Your task to perform on an android device: What's on my calendar tomorrow? Image 0: 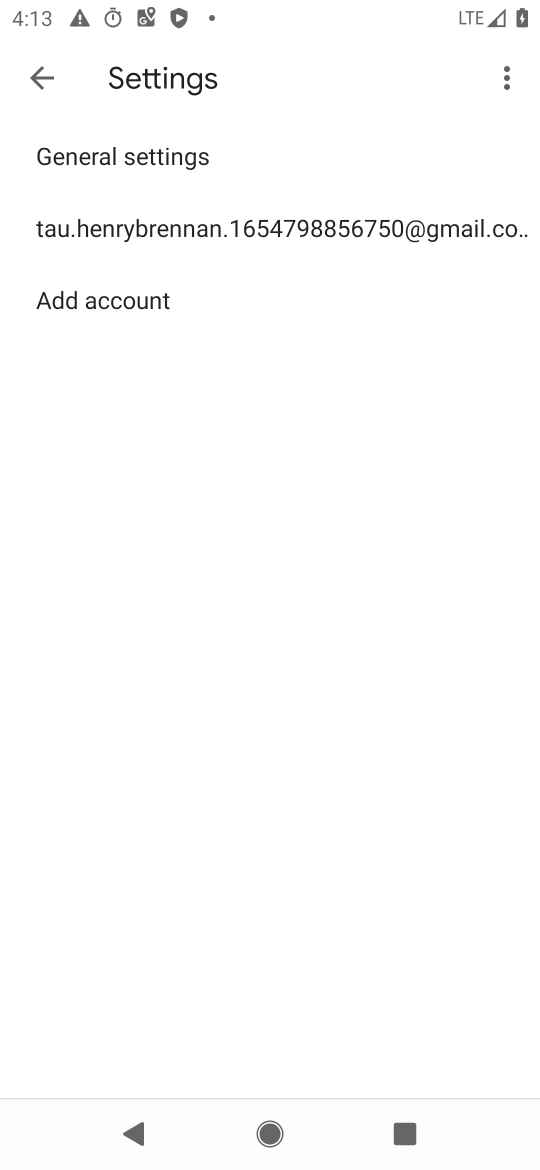
Step 0: press home button
Your task to perform on an android device: What's on my calendar tomorrow? Image 1: 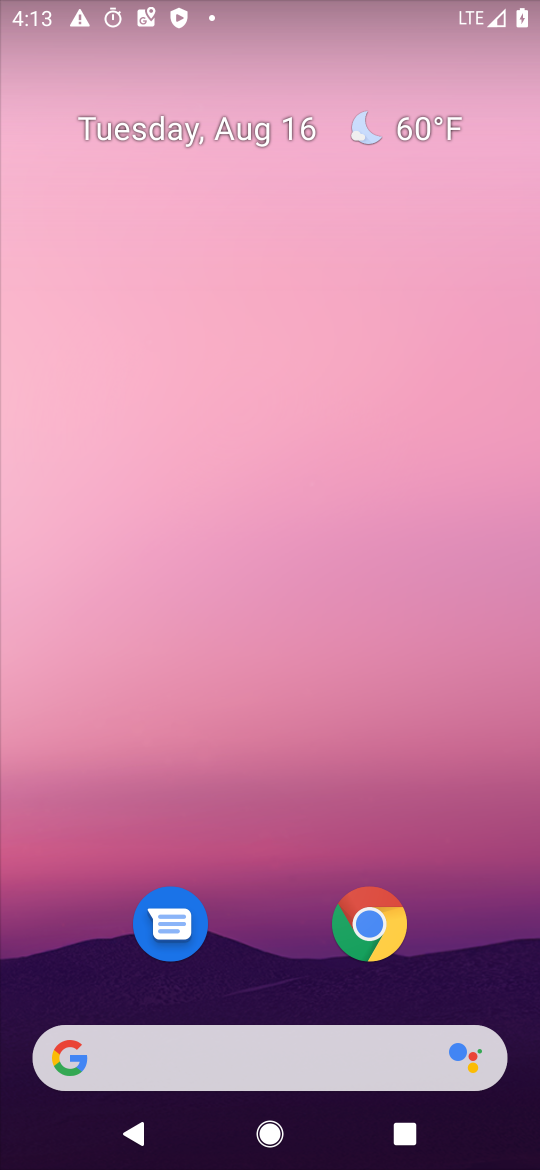
Step 1: click (270, 134)
Your task to perform on an android device: What's on my calendar tomorrow? Image 2: 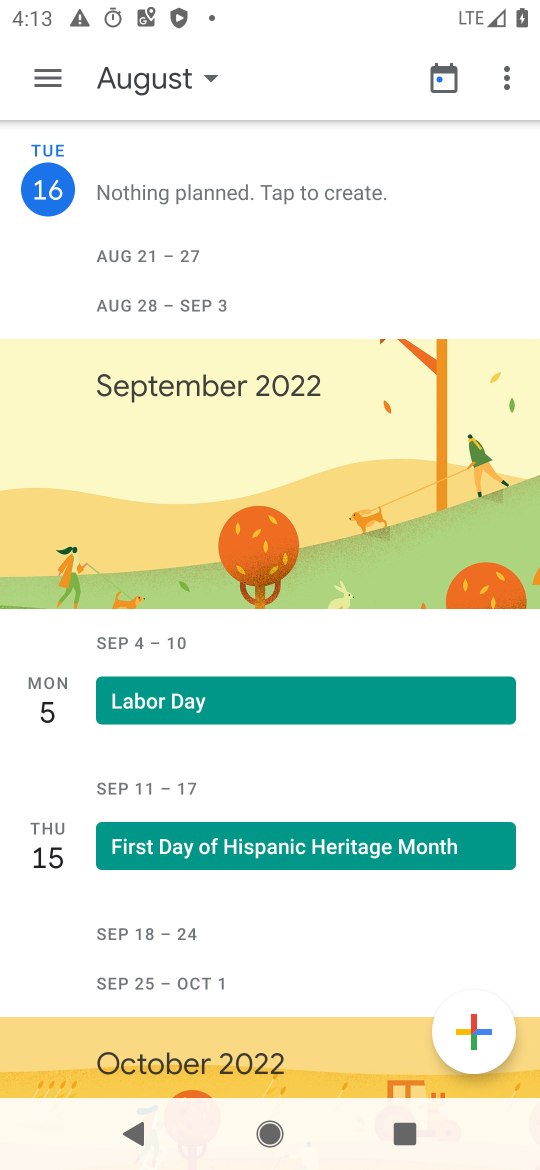
Step 2: click (124, 67)
Your task to perform on an android device: What's on my calendar tomorrow? Image 3: 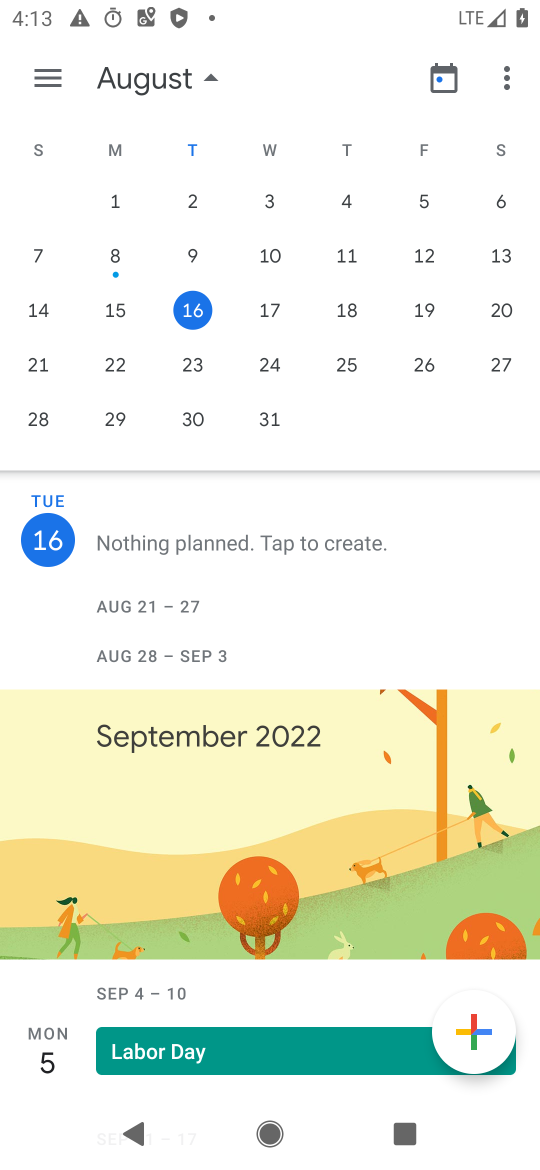
Step 3: click (270, 305)
Your task to perform on an android device: What's on my calendar tomorrow? Image 4: 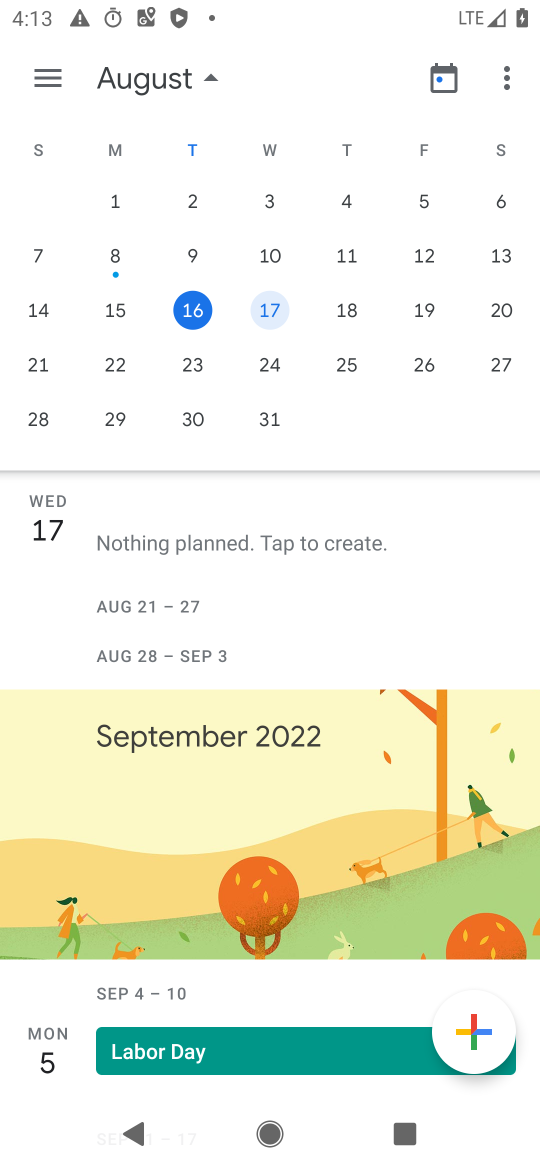
Step 4: task complete